Your task to perform on an android device: open app "VLC for Android" Image 0: 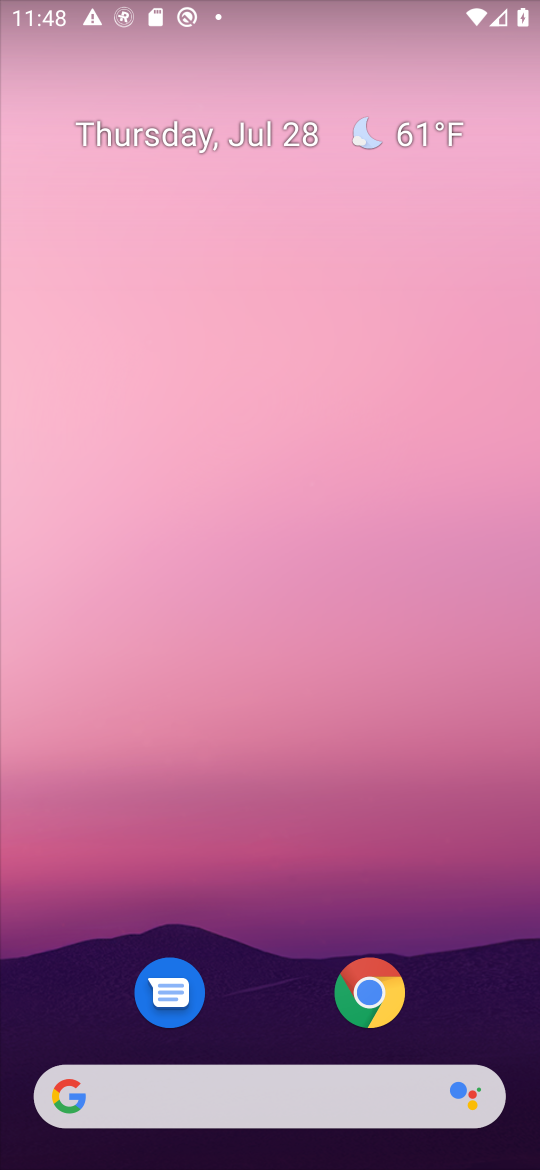
Step 0: press home button
Your task to perform on an android device: open app "VLC for Android" Image 1: 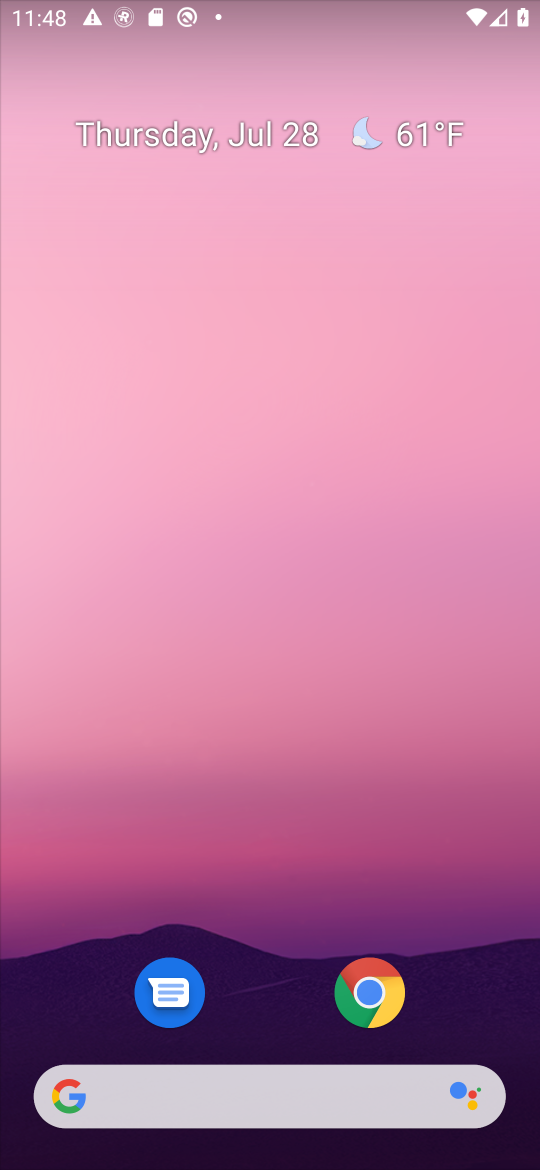
Step 1: drag from (210, 1101) to (272, 42)
Your task to perform on an android device: open app "VLC for Android" Image 2: 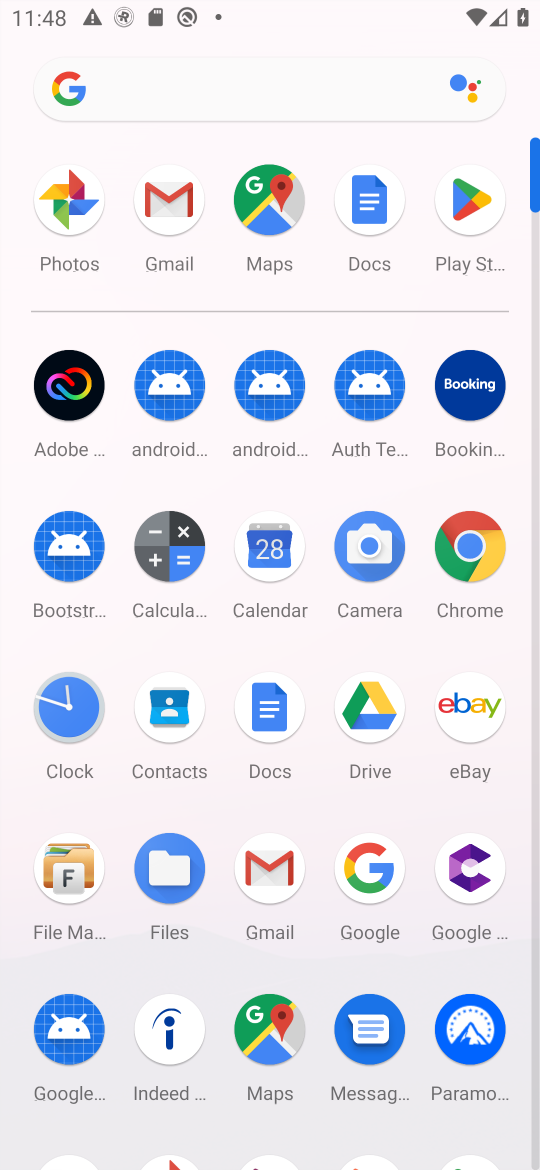
Step 2: click (470, 201)
Your task to perform on an android device: open app "VLC for Android" Image 3: 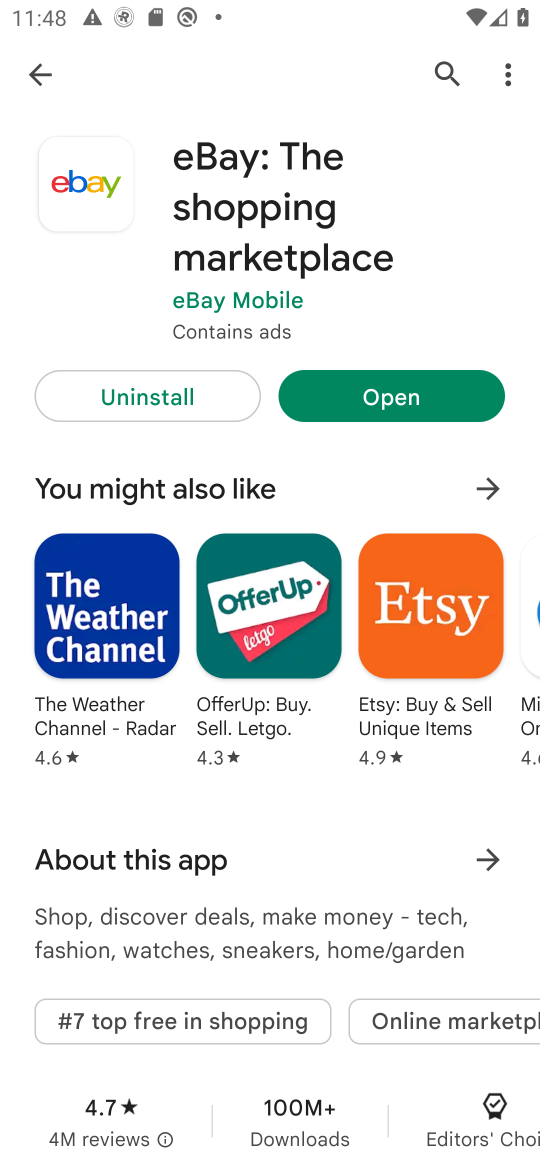
Step 3: click (448, 75)
Your task to perform on an android device: open app "VLC for Android" Image 4: 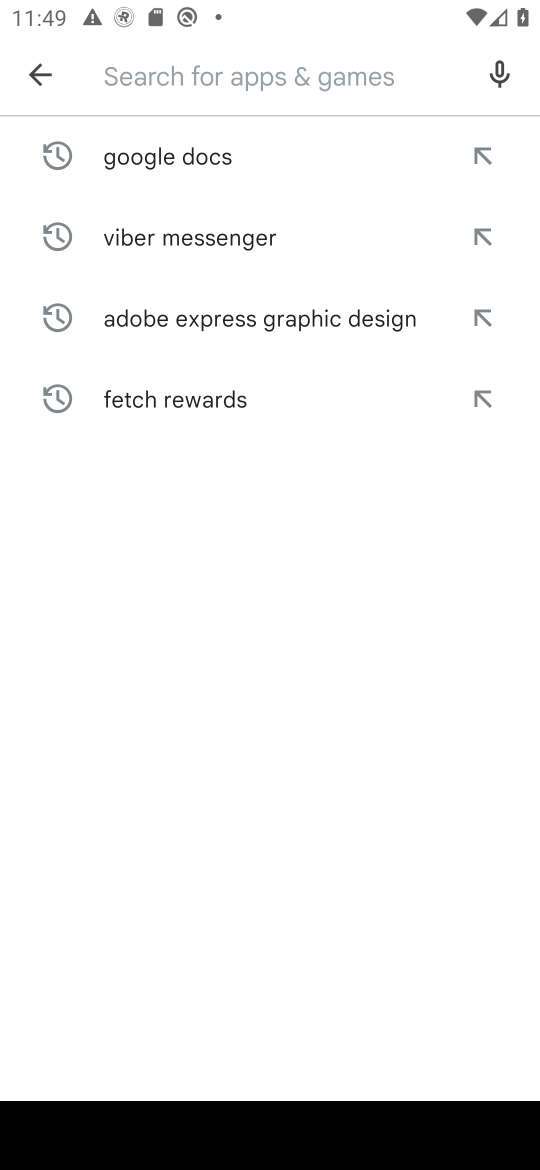
Step 4: click (232, 76)
Your task to perform on an android device: open app "VLC for Android" Image 5: 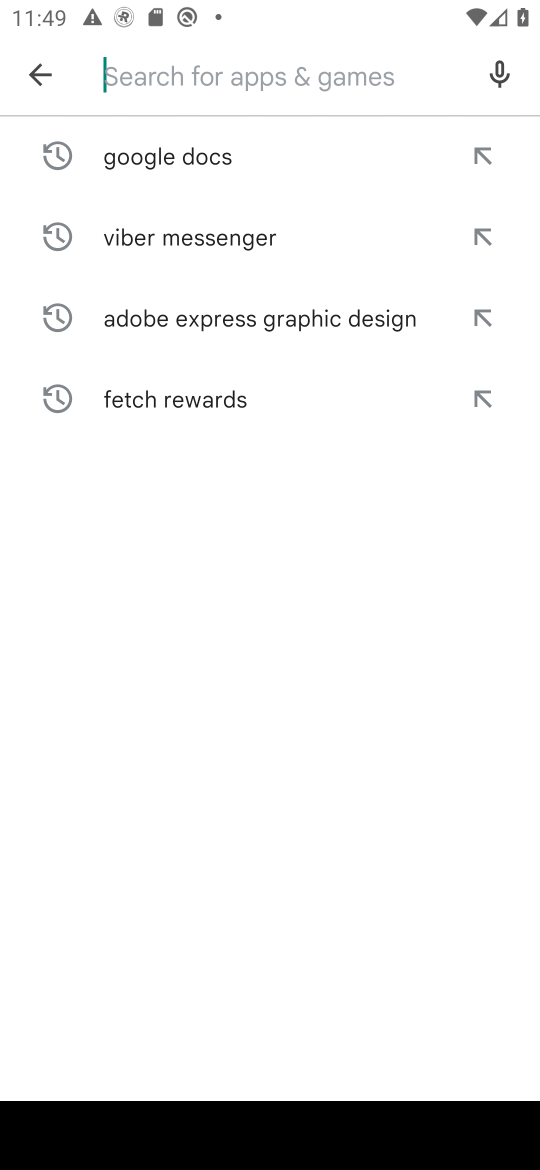
Step 5: type "VLC for Android"
Your task to perform on an android device: open app "VLC for Android" Image 6: 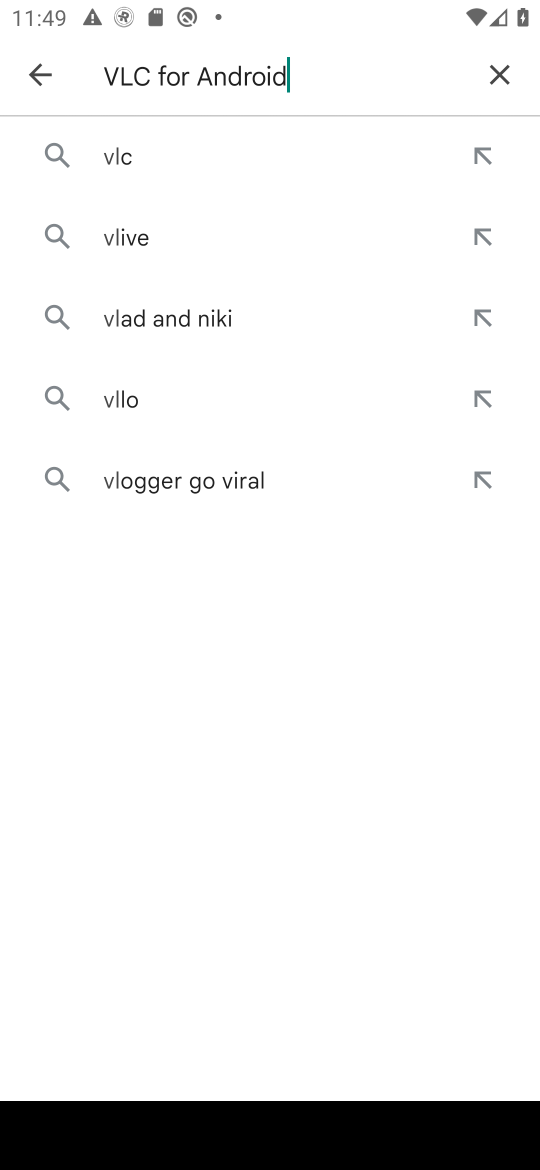
Step 6: type ""
Your task to perform on an android device: open app "VLC for Android" Image 7: 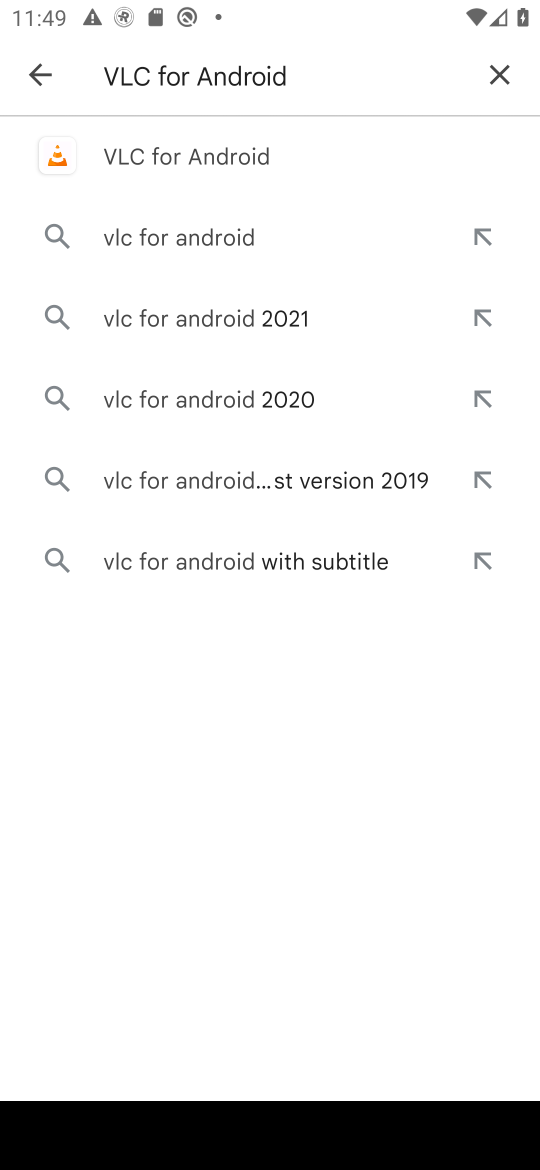
Step 7: click (257, 152)
Your task to perform on an android device: open app "VLC for Android" Image 8: 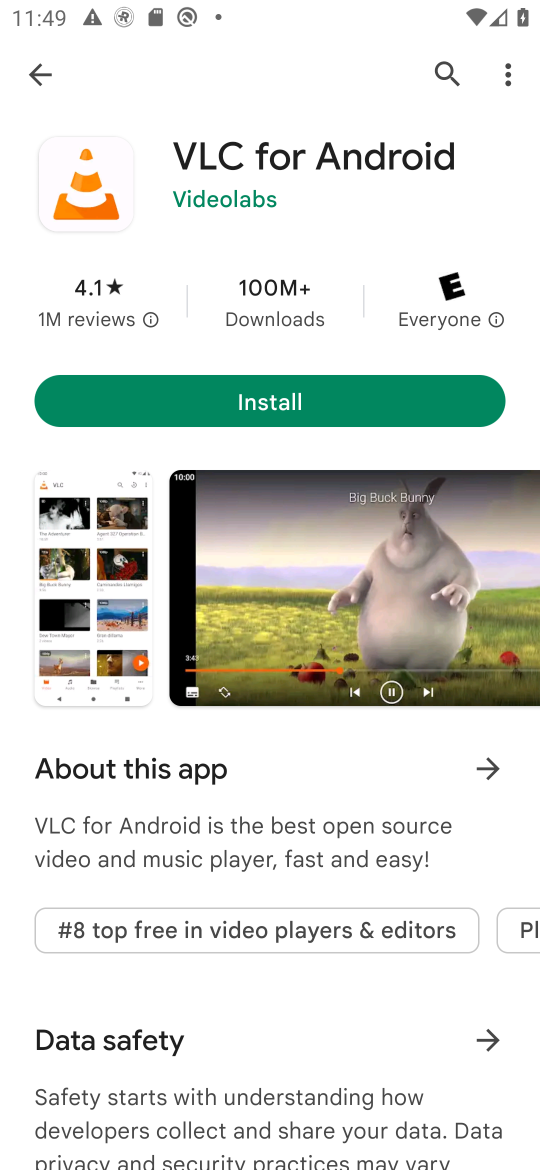
Step 8: task complete